Your task to perform on an android device: move a message to another label in the gmail app Image 0: 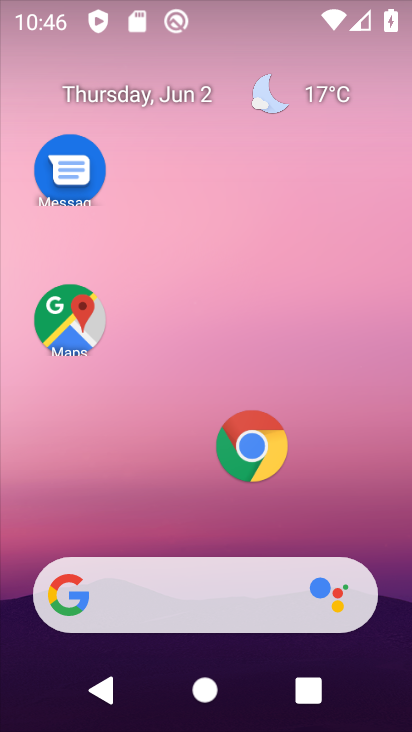
Step 0: click (267, 449)
Your task to perform on an android device: move a message to another label in the gmail app Image 1: 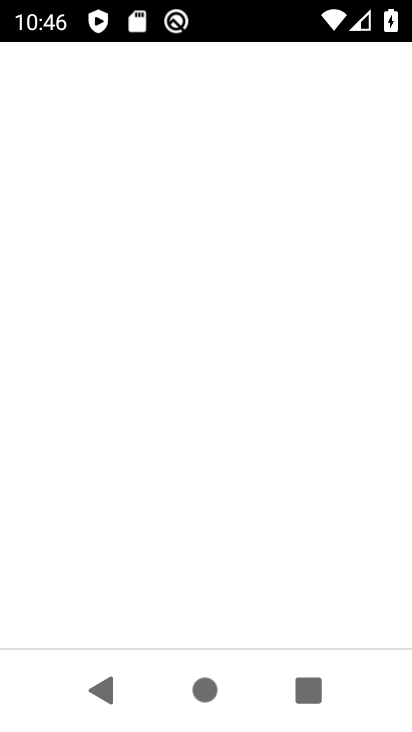
Step 1: press home button
Your task to perform on an android device: move a message to another label in the gmail app Image 2: 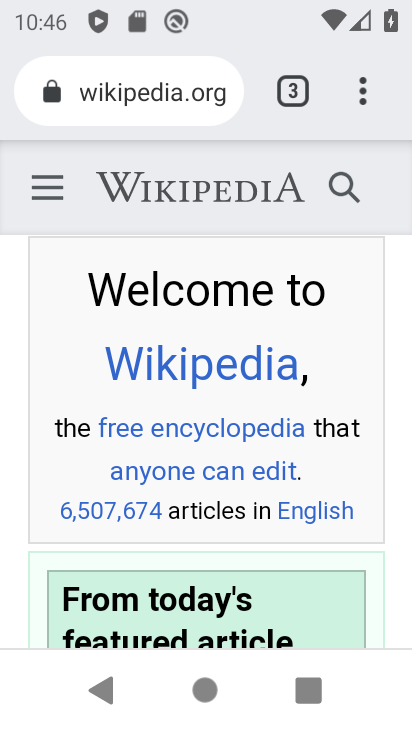
Step 2: drag from (329, 512) to (370, 88)
Your task to perform on an android device: move a message to another label in the gmail app Image 3: 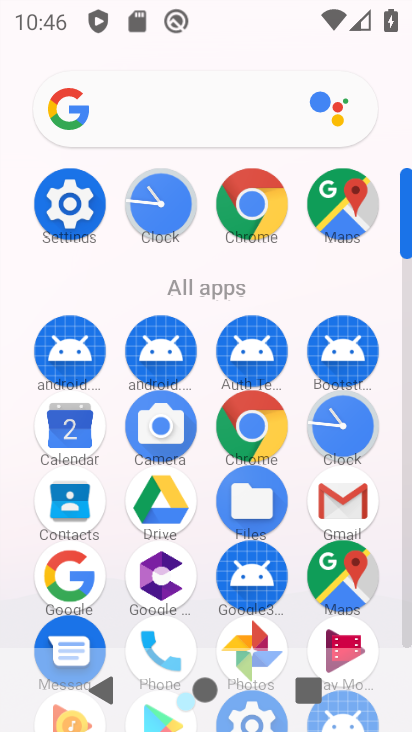
Step 3: click (352, 508)
Your task to perform on an android device: move a message to another label in the gmail app Image 4: 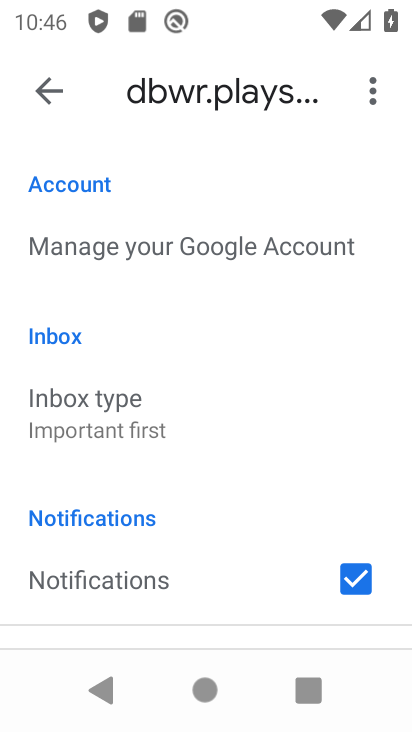
Step 4: click (57, 88)
Your task to perform on an android device: move a message to another label in the gmail app Image 5: 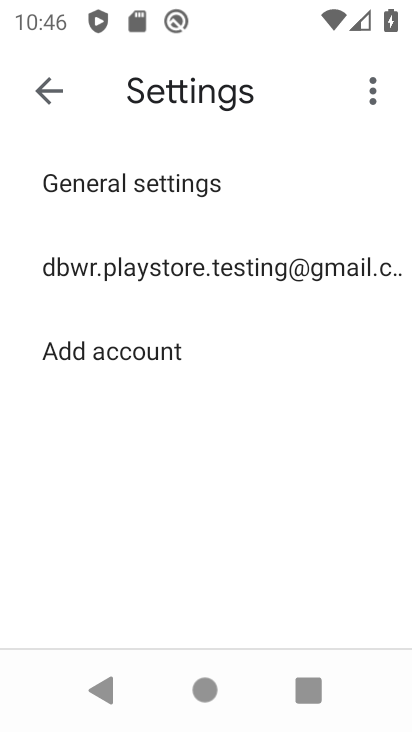
Step 5: click (57, 88)
Your task to perform on an android device: move a message to another label in the gmail app Image 6: 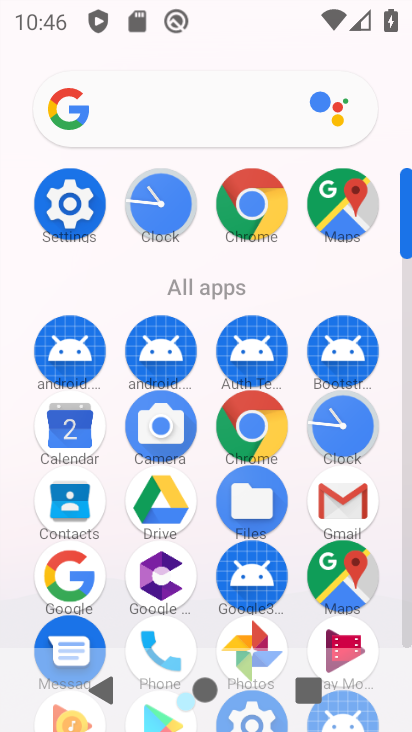
Step 6: task complete